Your task to perform on an android device: Do I have any events today? Image 0: 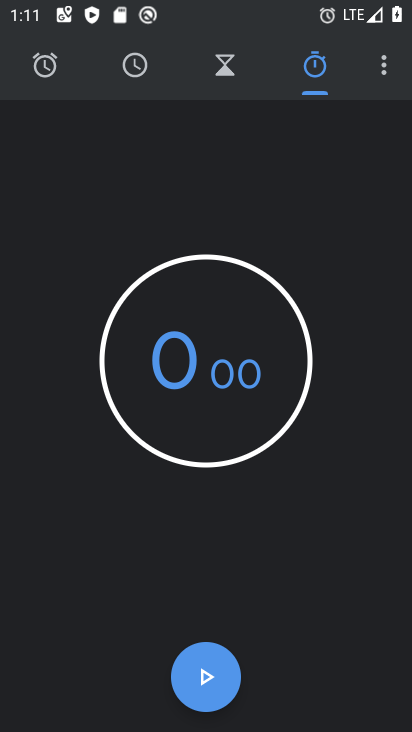
Step 0: drag from (379, 657) to (410, 494)
Your task to perform on an android device: Do I have any events today? Image 1: 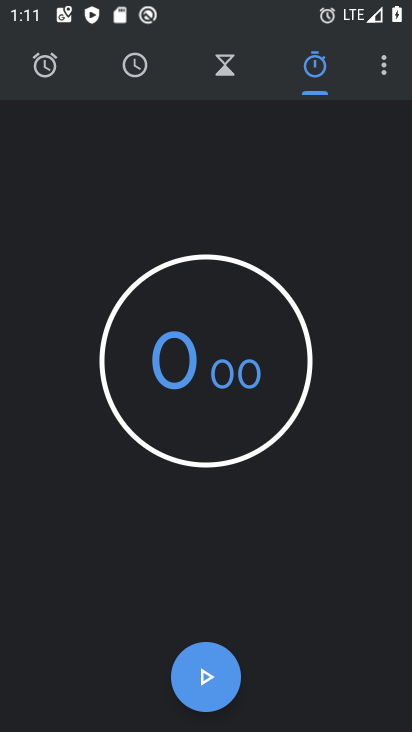
Step 1: press home button
Your task to perform on an android device: Do I have any events today? Image 2: 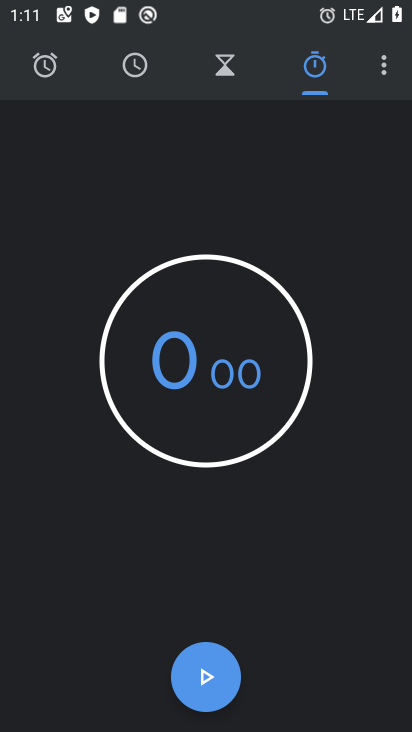
Step 2: click (412, 388)
Your task to perform on an android device: Do I have any events today? Image 3: 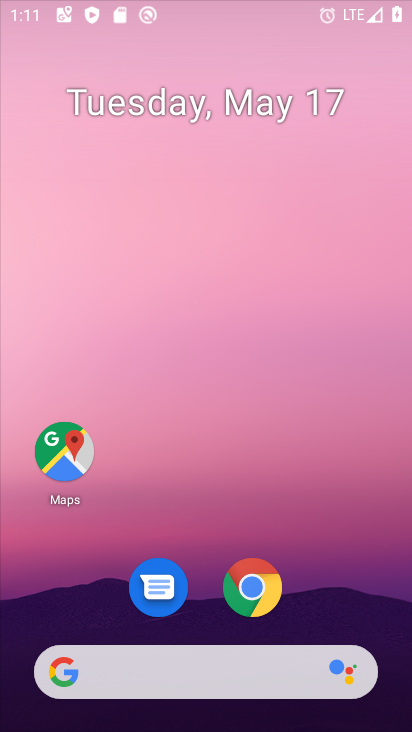
Step 3: drag from (402, 641) to (276, 12)
Your task to perform on an android device: Do I have any events today? Image 4: 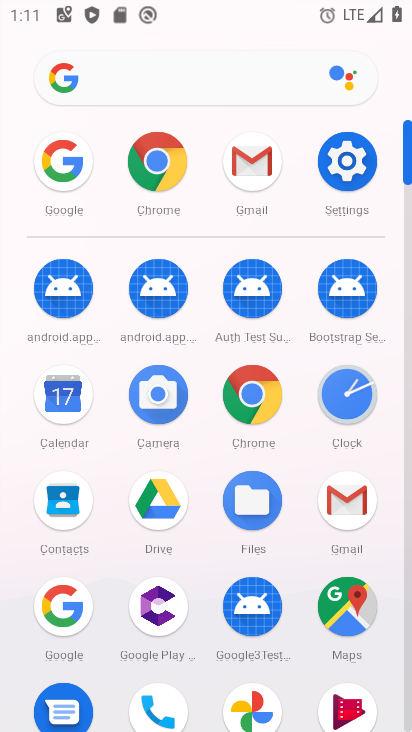
Step 4: click (72, 392)
Your task to perform on an android device: Do I have any events today? Image 5: 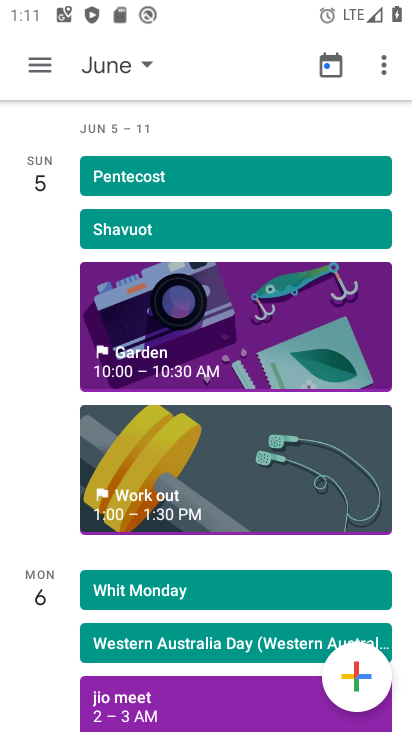
Step 5: task complete